Your task to perform on an android device: turn on the 24-hour format for clock Image 0: 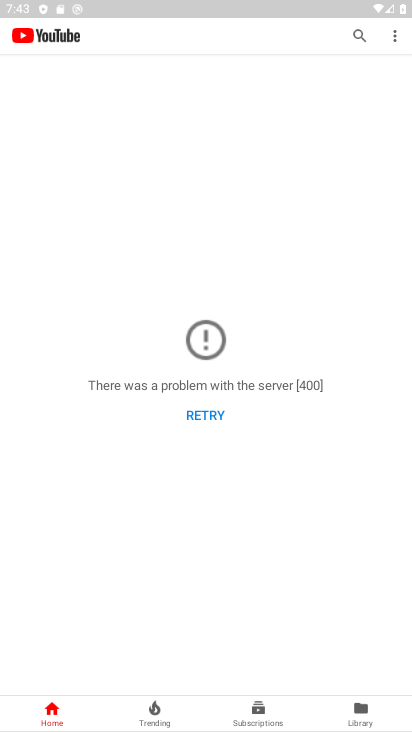
Step 0: press back button
Your task to perform on an android device: turn on the 24-hour format for clock Image 1: 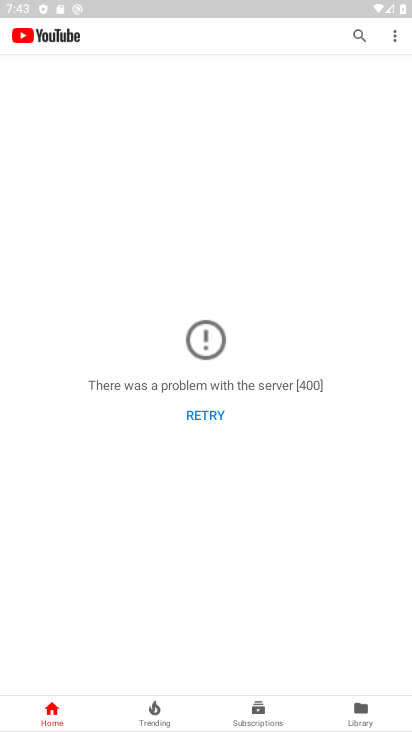
Step 1: press back button
Your task to perform on an android device: turn on the 24-hour format for clock Image 2: 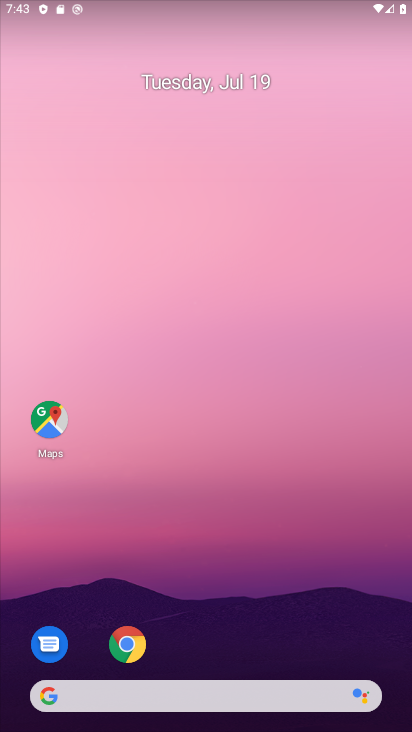
Step 2: click (136, 10)
Your task to perform on an android device: turn on the 24-hour format for clock Image 3: 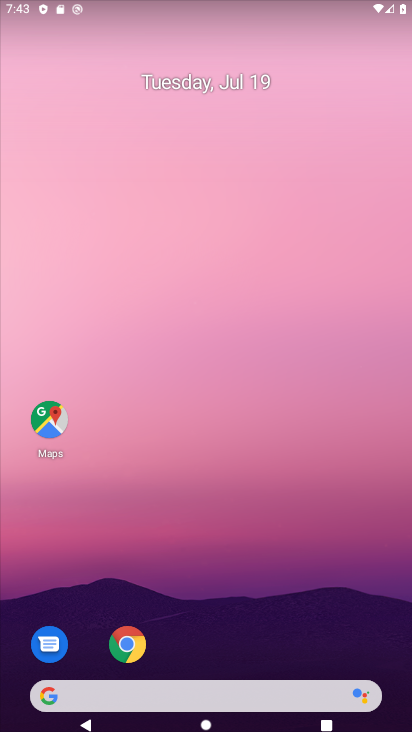
Step 3: drag from (177, 503) to (210, 123)
Your task to perform on an android device: turn on the 24-hour format for clock Image 4: 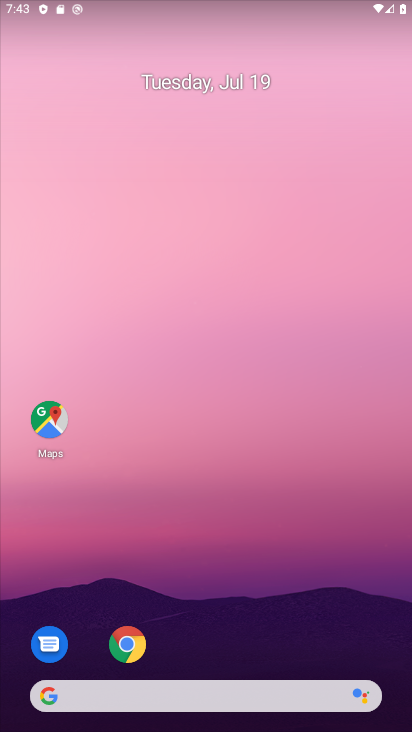
Step 4: drag from (181, 638) to (210, 270)
Your task to perform on an android device: turn on the 24-hour format for clock Image 5: 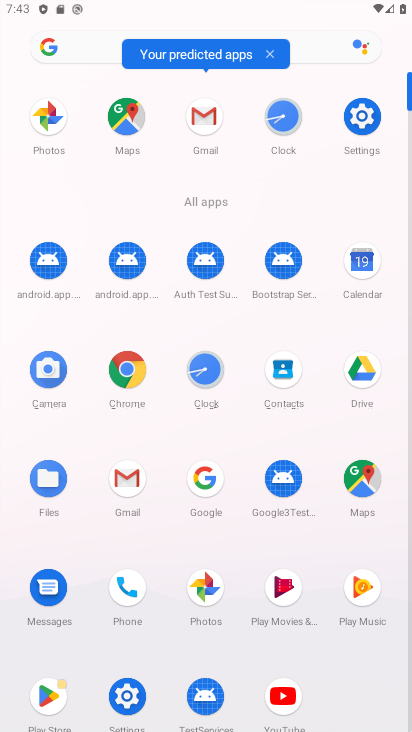
Step 5: click (218, 365)
Your task to perform on an android device: turn on the 24-hour format for clock Image 6: 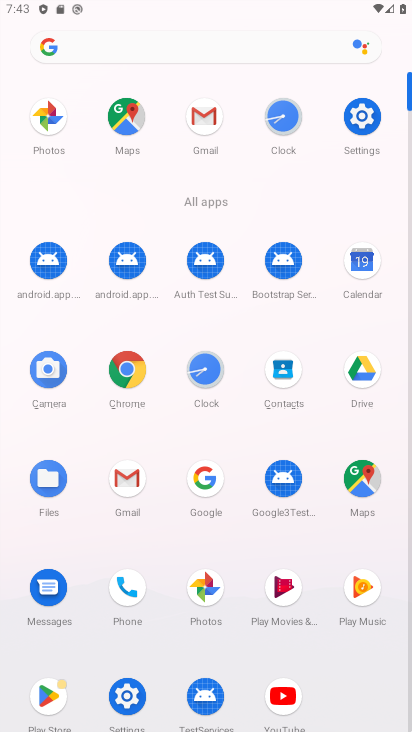
Step 6: click (198, 372)
Your task to perform on an android device: turn on the 24-hour format for clock Image 7: 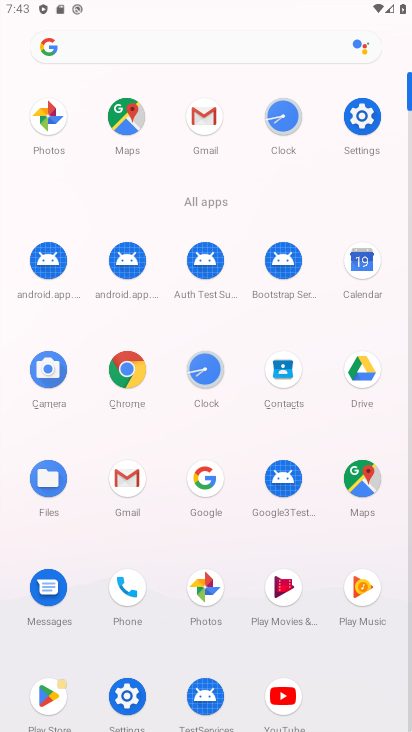
Step 7: click (194, 357)
Your task to perform on an android device: turn on the 24-hour format for clock Image 8: 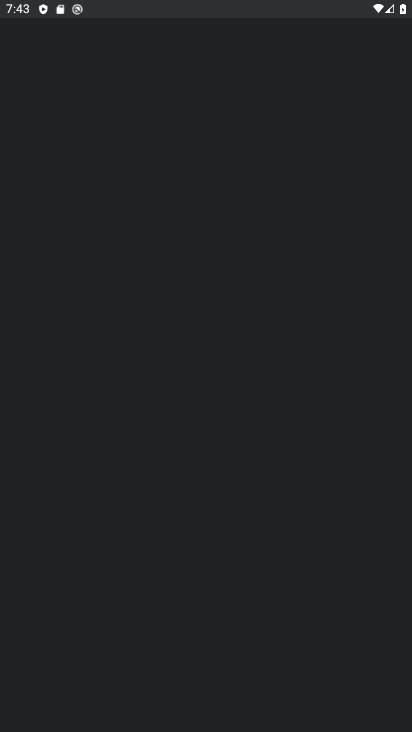
Step 8: click (197, 369)
Your task to perform on an android device: turn on the 24-hour format for clock Image 9: 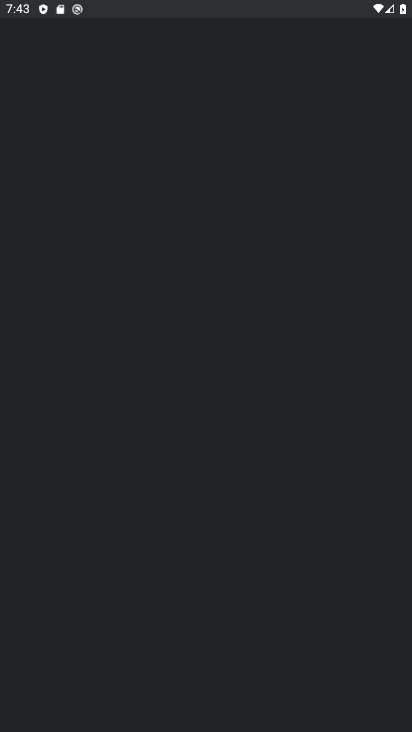
Step 9: click (197, 369)
Your task to perform on an android device: turn on the 24-hour format for clock Image 10: 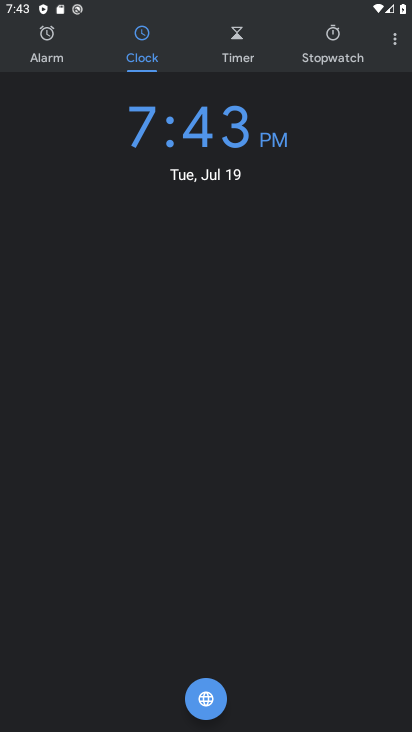
Step 10: click (392, 41)
Your task to perform on an android device: turn on the 24-hour format for clock Image 11: 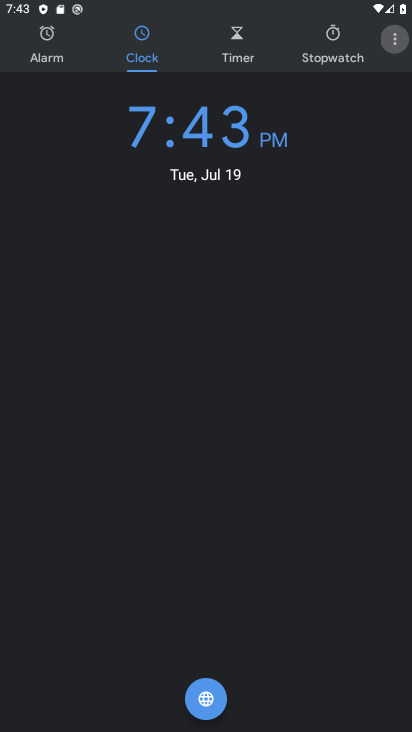
Step 11: click (392, 41)
Your task to perform on an android device: turn on the 24-hour format for clock Image 12: 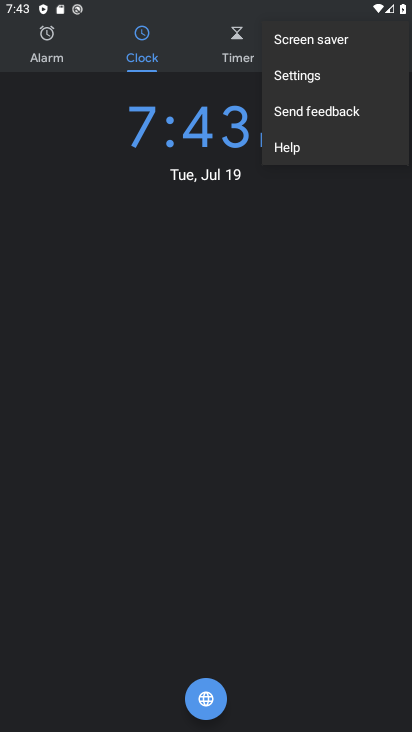
Step 12: click (300, 76)
Your task to perform on an android device: turn on the 24-hour format for clock Image 13: 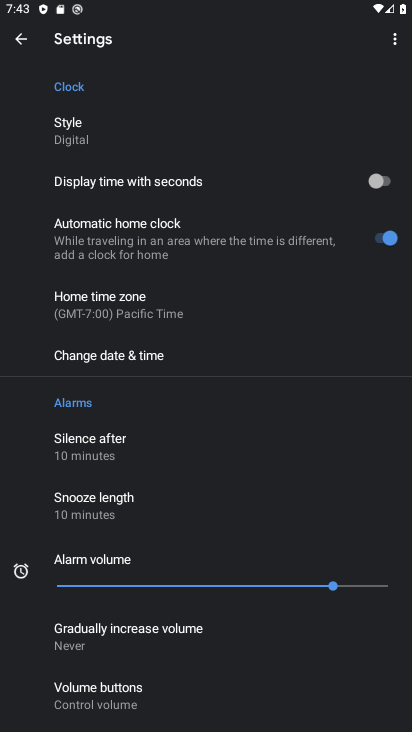
Step 13: click (106, 353)
Your task to perform on an android device: turn on the 24-hour format for clock Image 14: 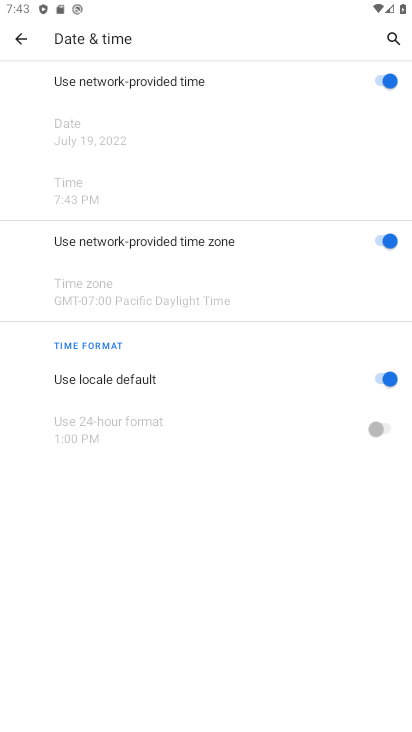
Step 14: click (391, 378)
Your task to perform on an android device: turn on the 24-hour format for clock Image 15: 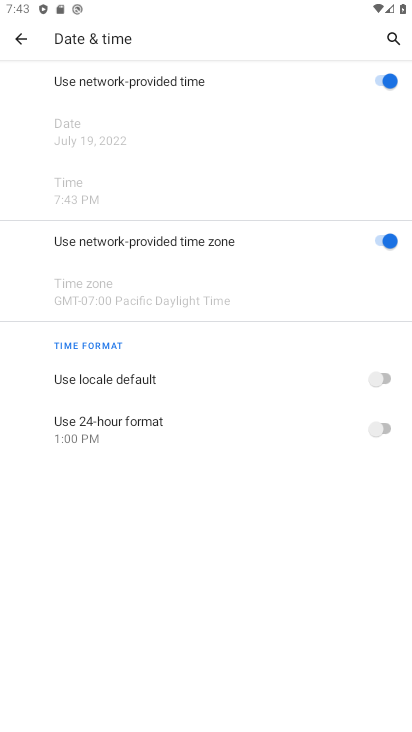
Step 15: click (383, 429)
Your task to perform on an android device: turn on the 24-hour format for clock Image 16: 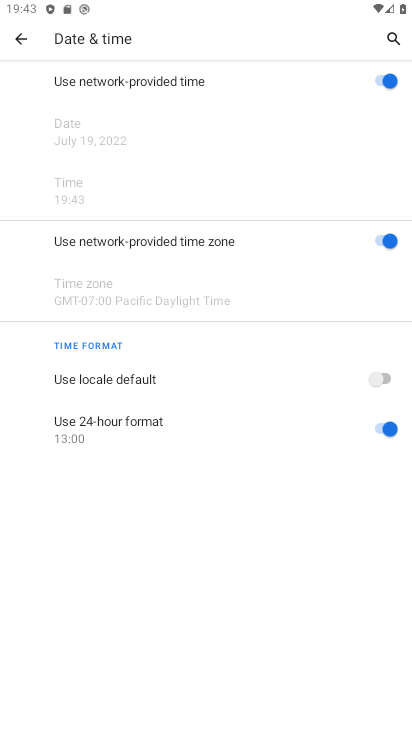
Step 16: task complete